Your task to perform on an android device: check android version Image 0: 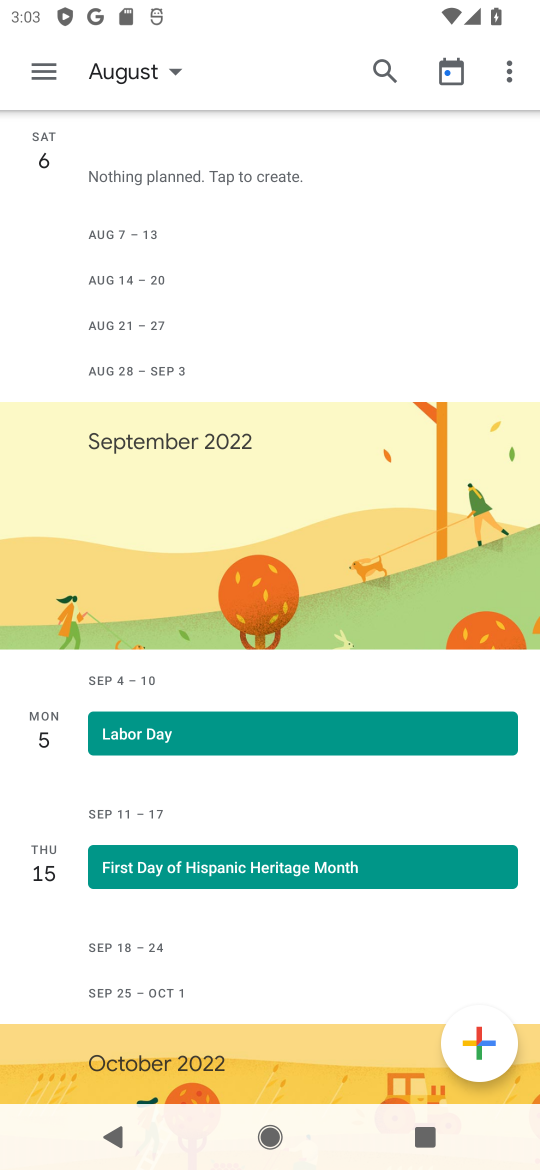
Step 0: press home button
Your task to perform on an android device: check android version Image 1: 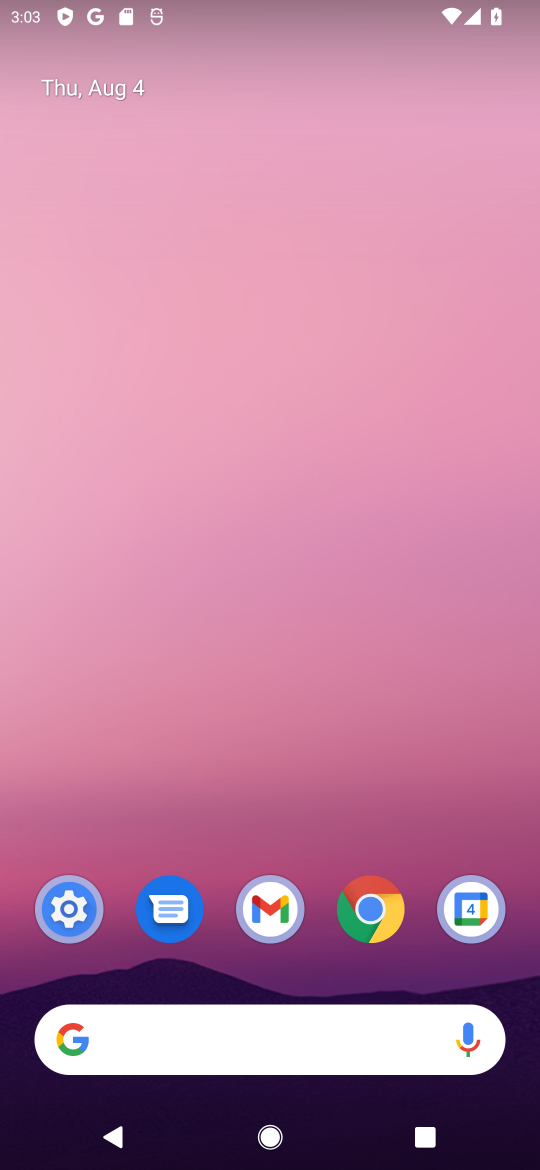
Step 1: click (71, 905)
Your task to perform on an android device: check android version Image 2: 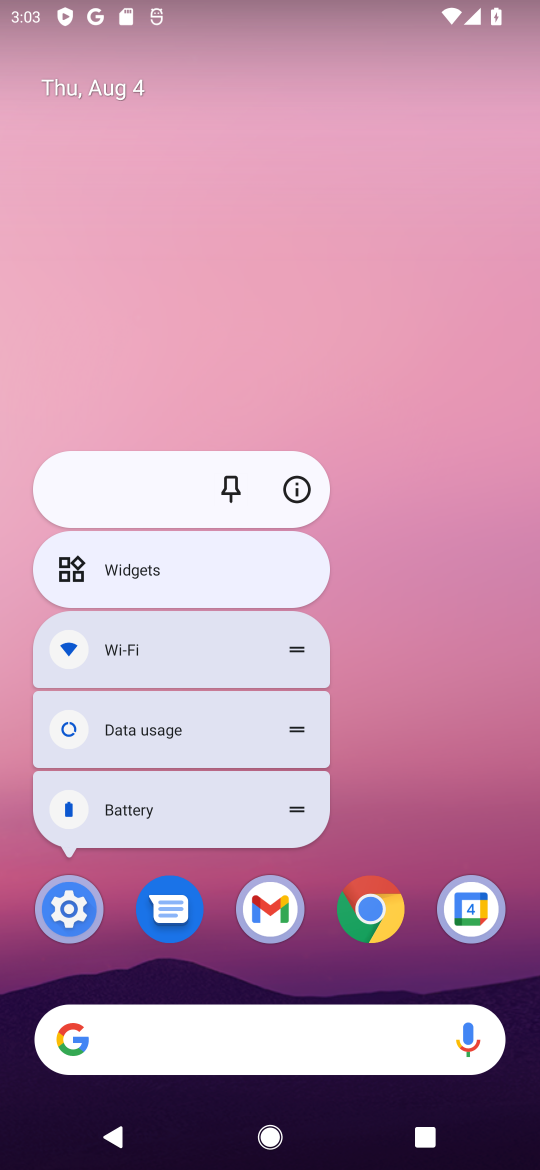
Step 2: click (60, 921)
Your task to perform on an android device: check android version Image 3: 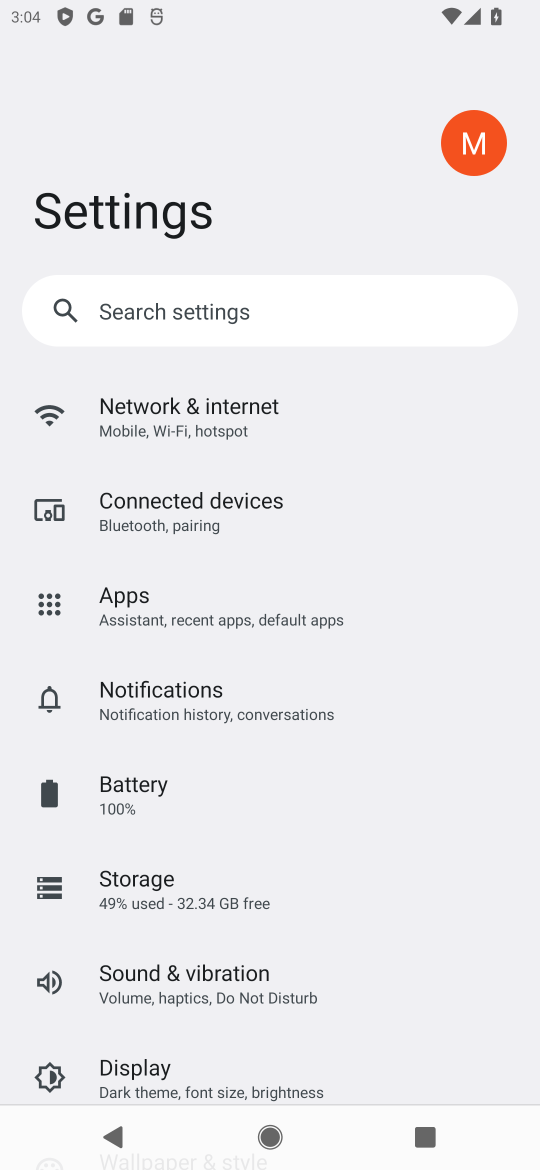
Step 3: drag from (317, 1030) to (536, 269)
Your task to perform on an android device: check android version Image 4: 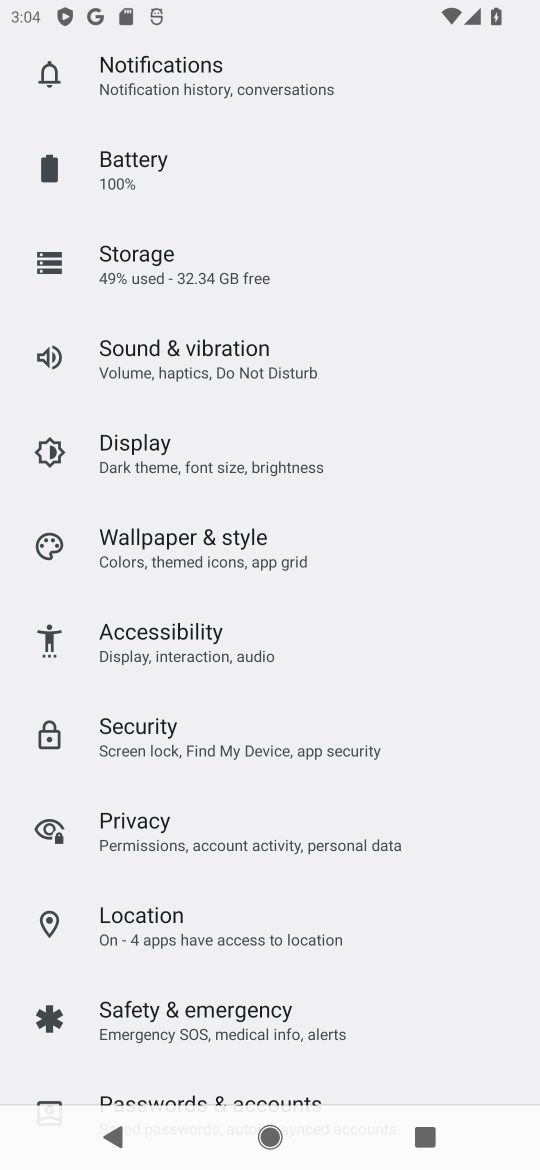
Step 4: drag from (318, 984) to (518, 225)
Your task to perform on an android device: check android version Image 5: 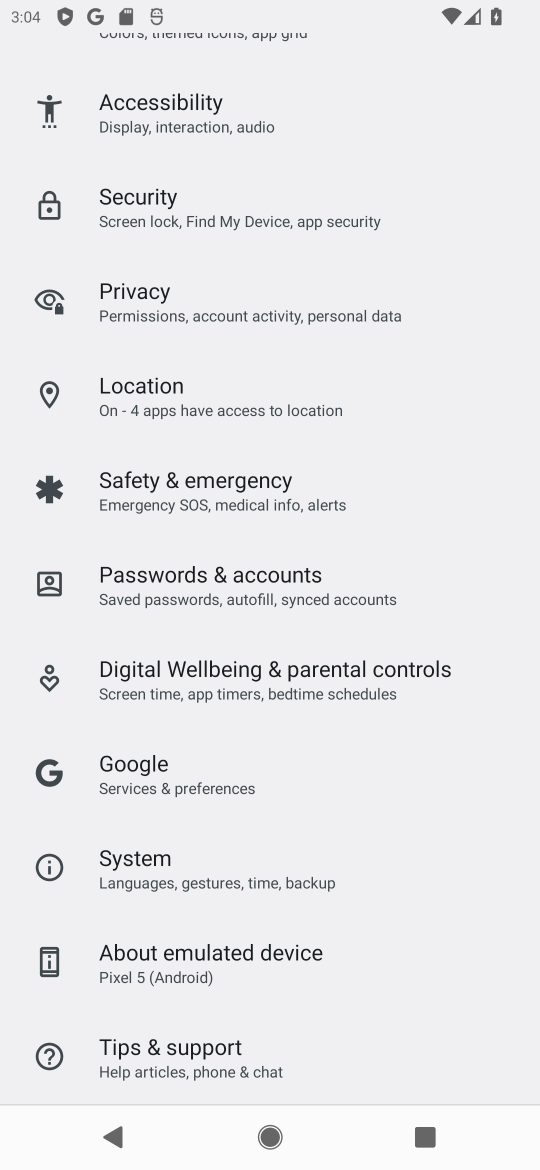
Step 5: click (212, 959)
Your task to perform on an android device: check android version Image 6: 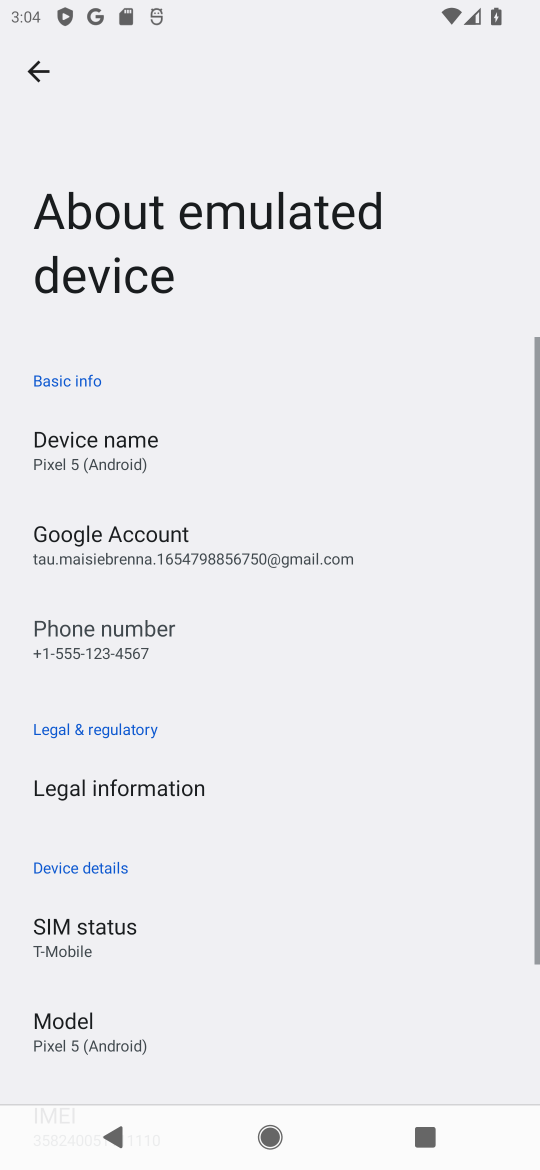
Step 6: drag from (222, 1047) to (414, 327)
Your task to perform on an android device: check android version Image 7: 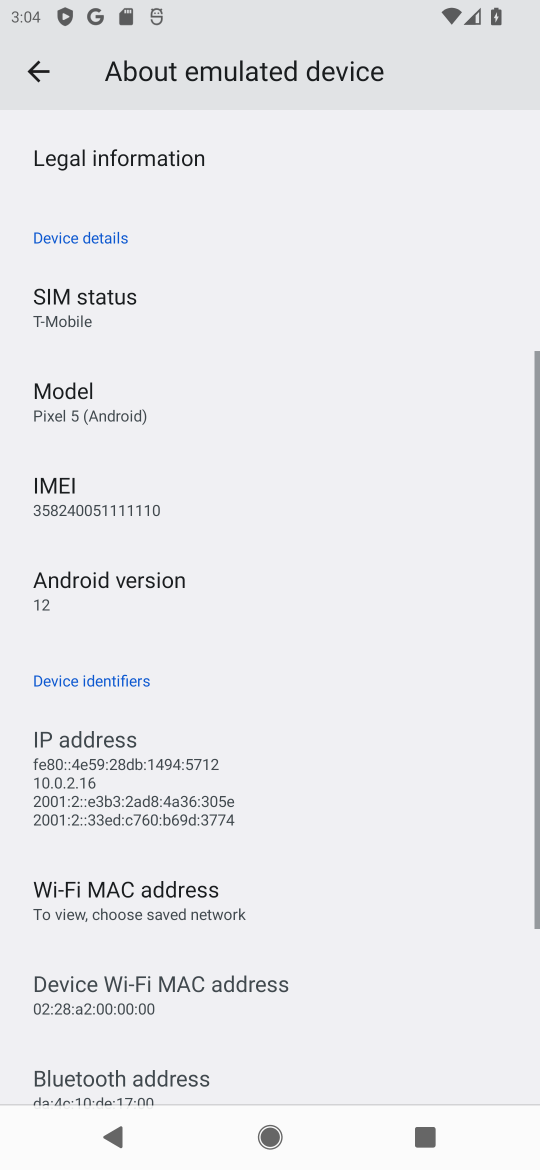
Step 7: click (123, 578)
Your task to perform on an android device: check android version Image 8: 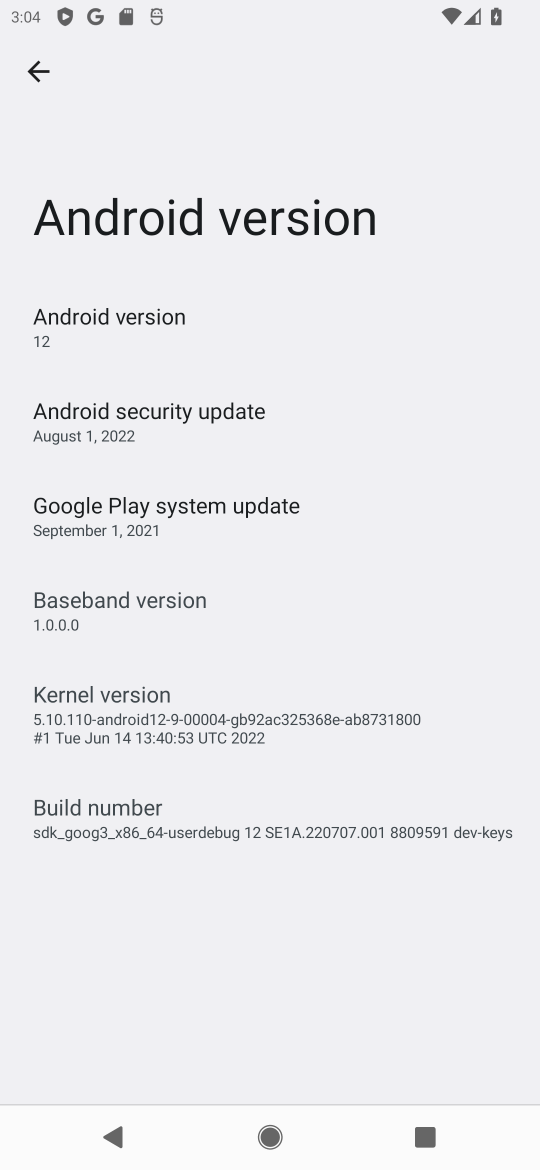
Step 8: task complete